Your task to perform on an android device: toggle priority inbox in the gmail app Image 0: 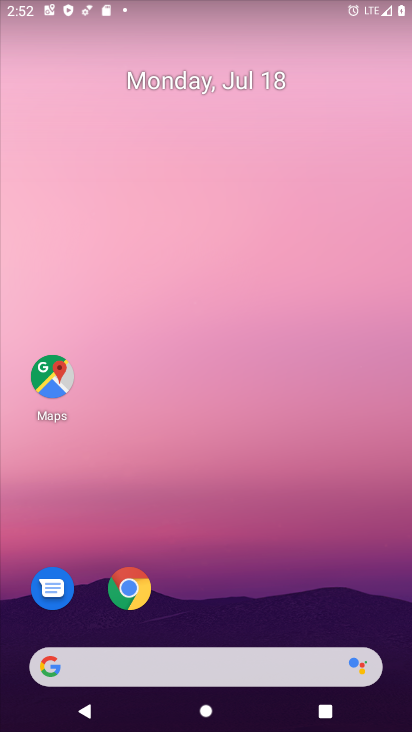
Step 0: drag from (193, 585) to (265, 54)
Your task to perform on an android device: toggle priority inbox in the gmail app Image 1: 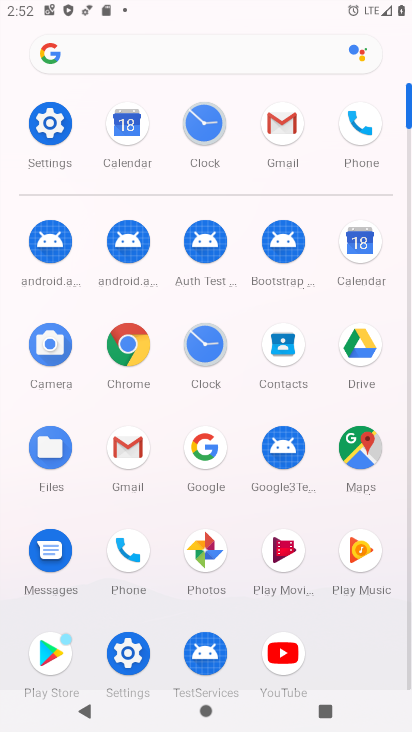
Step 1: click (276, 133)
Your task to perform on an android device: toggle priority inbox in the gmail app Image 2: 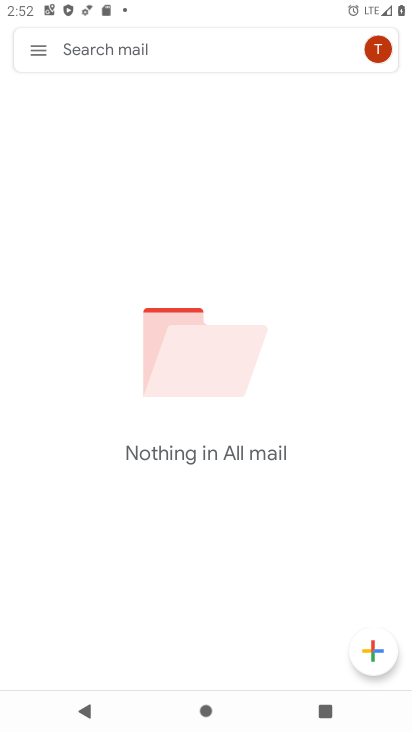
Step 2: click (38, 48)
Your task to perform on an android device: toggle priority inbox in the gmail app Image 3: 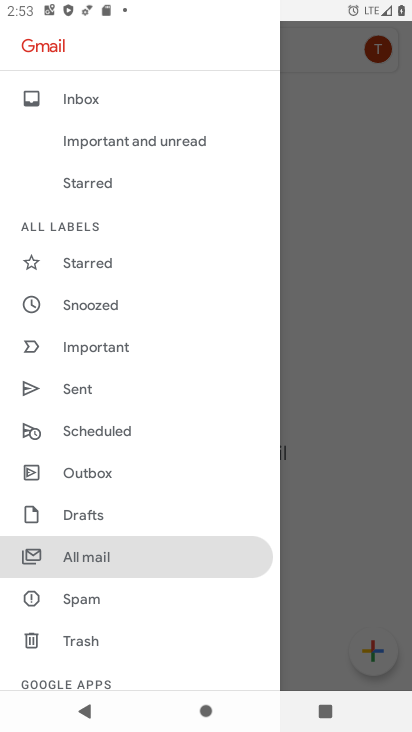
Step 3: drag from (138, 608) to (217, 203)
Your task to perform on an android device: toggle priority inbox in the gmail app Image 4: 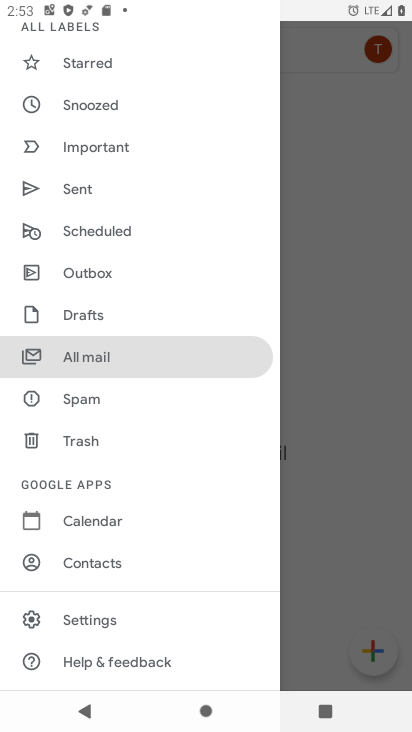
Step 4: click (81, 613)
Your task to perform on an android device: toggle priority inbox in the gmail app Image 5: 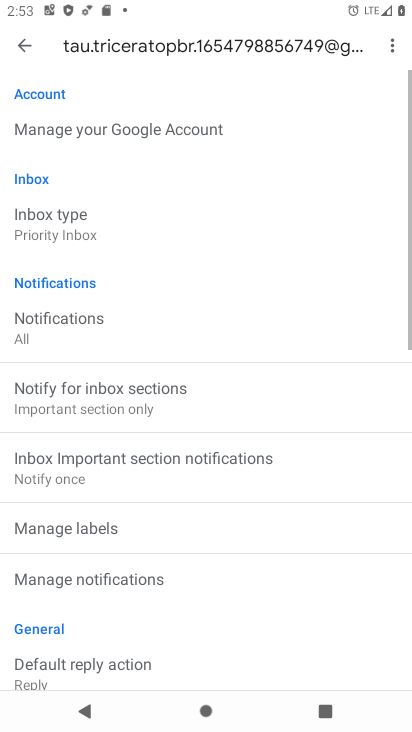
Step 5: click (97, 223)
Your task to perform on an android device: toggle priority inbox in the gmail app Image 6: 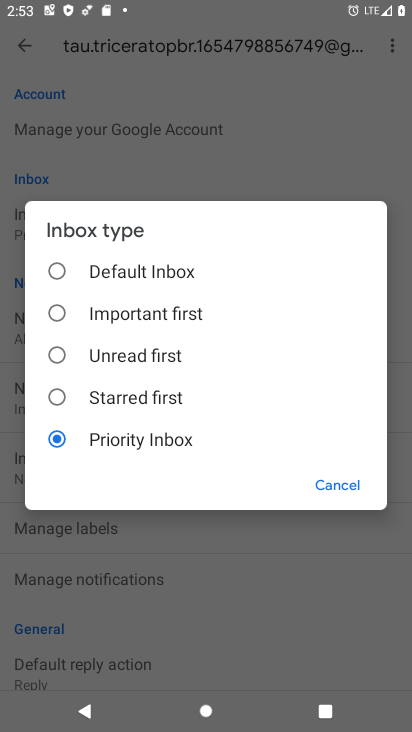
Step 6: click (99, 430)
Your task to perform on an android device: toggle priority inbox in the gmail app Image 7: 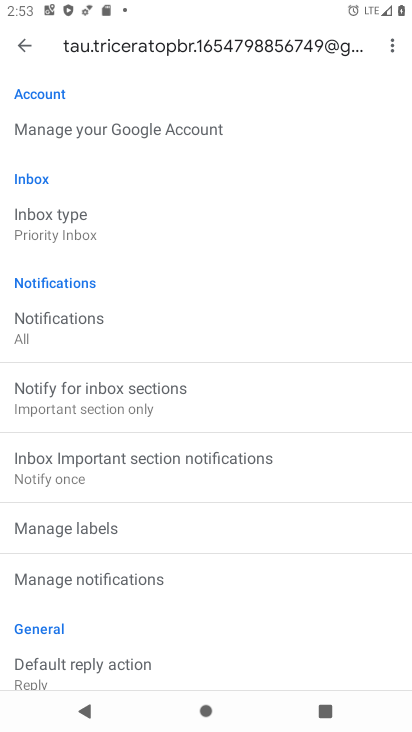
Step 7: task complete